Your task to perform on an android device: turn off smart reply in the gmail app Image 0: 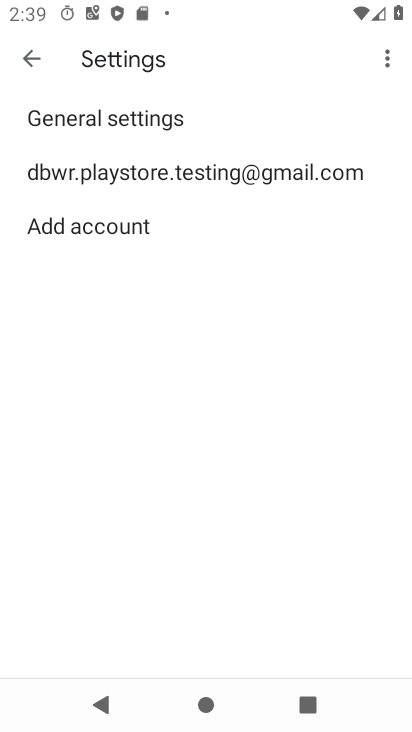
Step 0: press home button
Your task to perform on an android device: turn off smart reply in the gmail app Image 1: 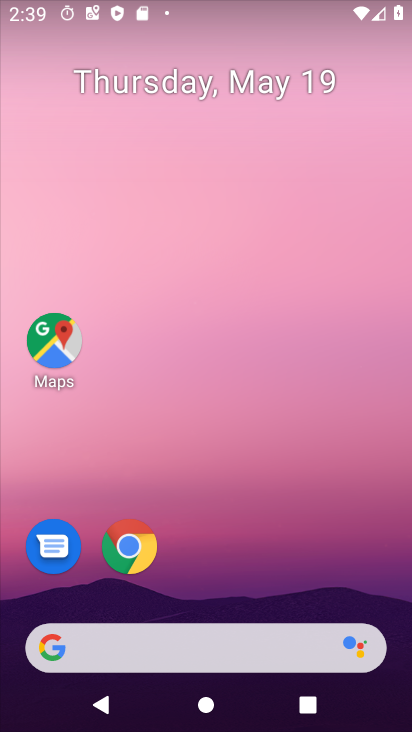
Step 1: drag from (192, 606) to (336, 358)
Your task to perform on an android device: turn off smart reply in the gmail app Image 2: 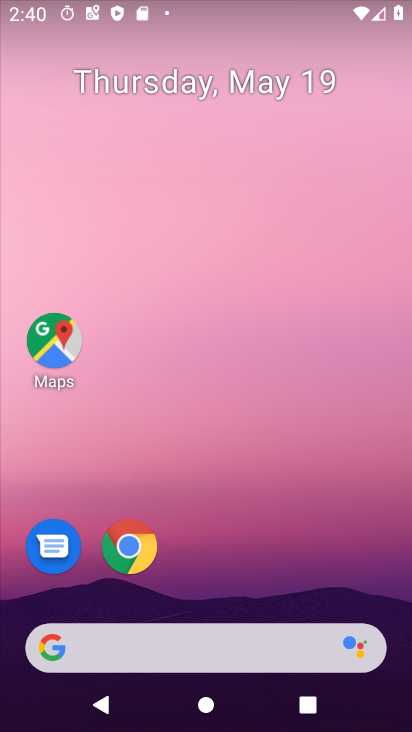
Step 2: drag from (173, 603) to (331, 12)
Your task to perform on an android device: turn off smart reply in the gmail app Image 3: 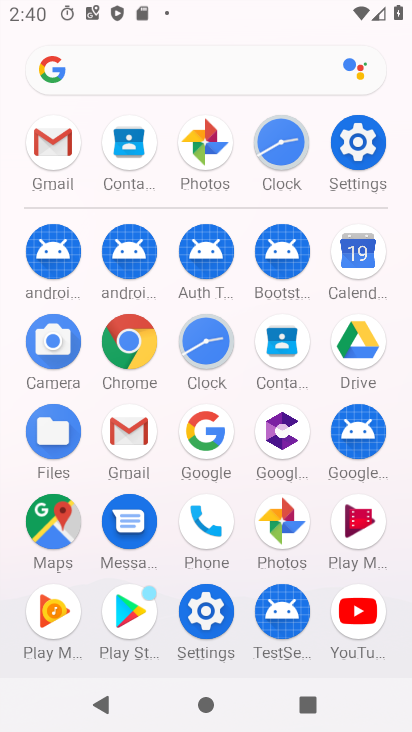
Step 3: click (52, 131)
Your task to perform on an android device: turn off smart reply in the gmail app Image 4: 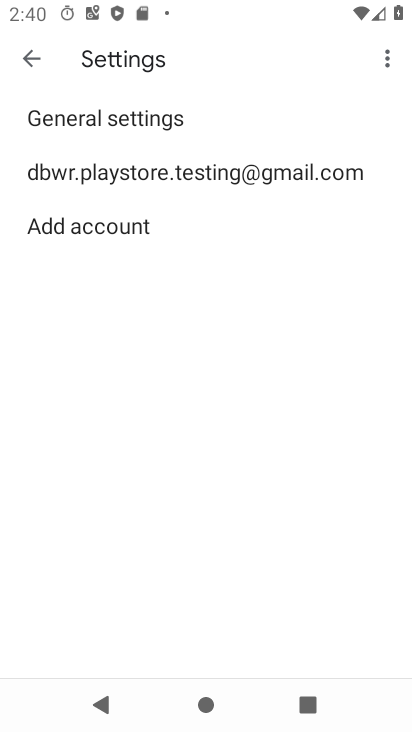
Step 4: click (145, 188)
Your task to perform on an android device: turn off smart reply in the gmail app Image 5: 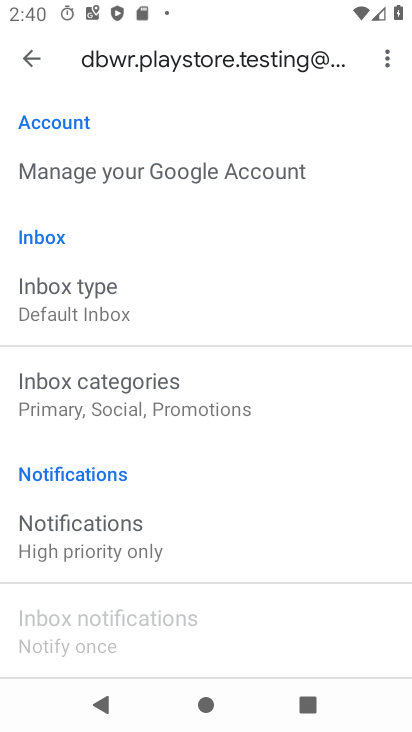
Step 5: task complete